Your task to perform on an android device: add a contact in the contacts app Image 0: 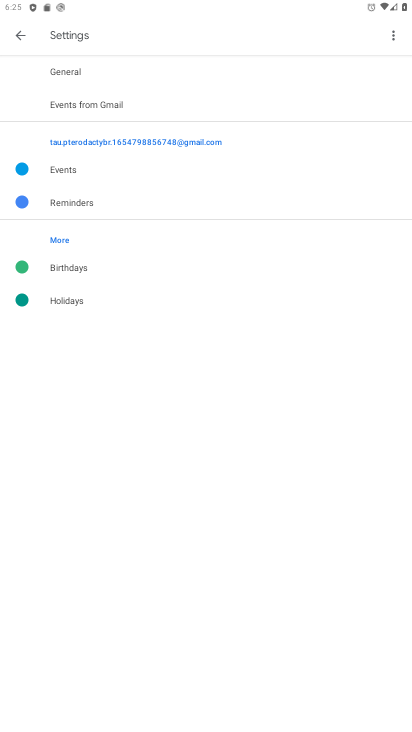
Step 0: press home button
Your task to perform on an android device: add a contact in the contacts app Image 1: 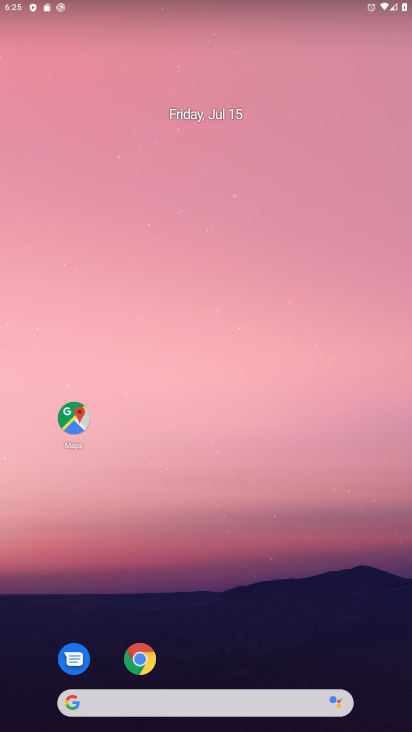
Step 1: drag from (365, 644) to (349, 199)
Your task to perform on an android device: add a contact in the contacts app Image 2: 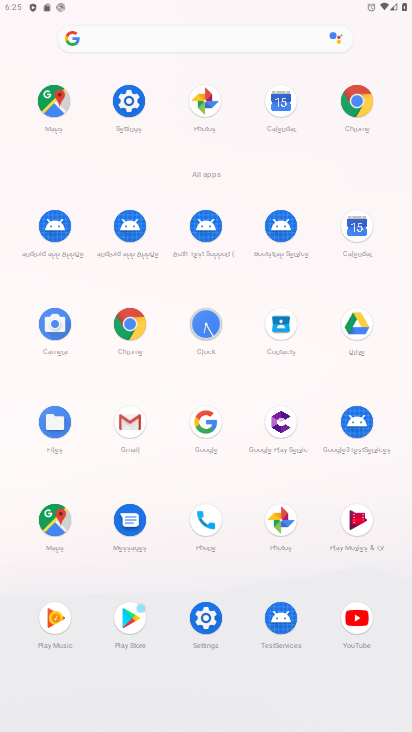
Step 2: click (278, 327)
Your task to perform on an android device: add a contact in the contacts app Image 3: 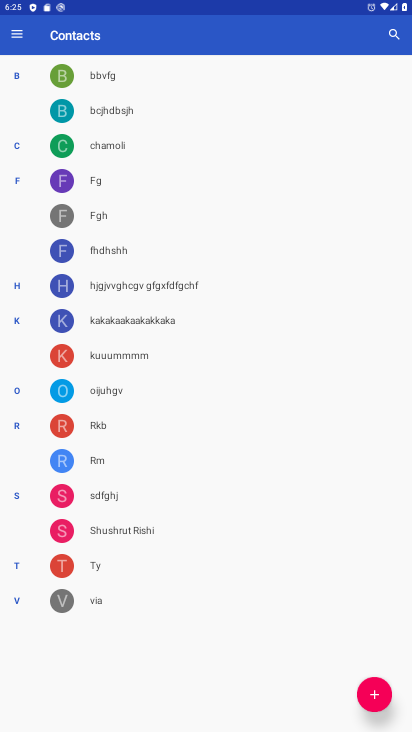
Step 3: click (377, 695)
Your task to perform on an android device: add a contact in the contacts app Image 4: 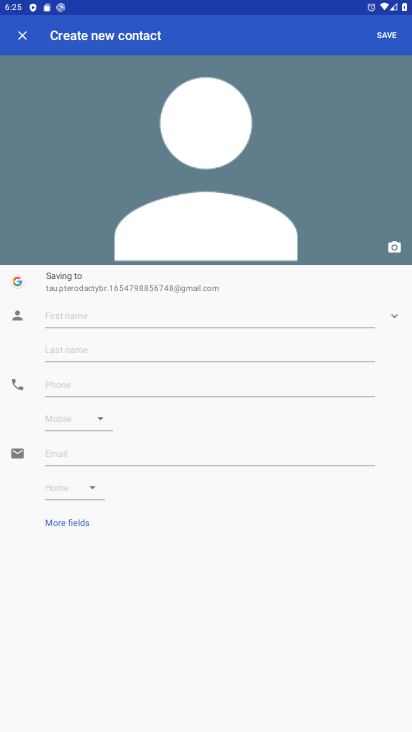
Step 4: click (90, 318)
Your task to perform on an android device: add a contact in the contacts app Image 5: 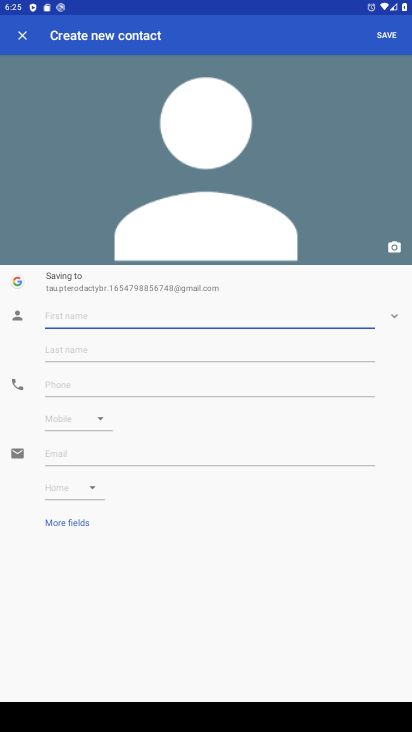
Step 5: type "poiuytfghj"
Your task to perform on an android device: add a contact in the contacts app Image 6: 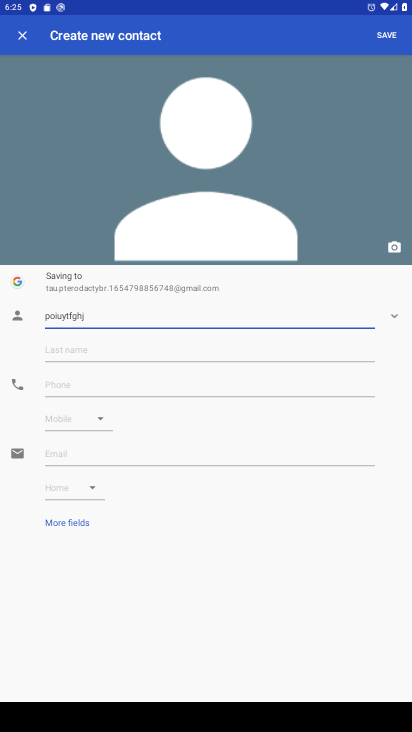
Step 6: click (104, 392)
Your task to perform on an android device: add a contact in the contacts app Image 7: 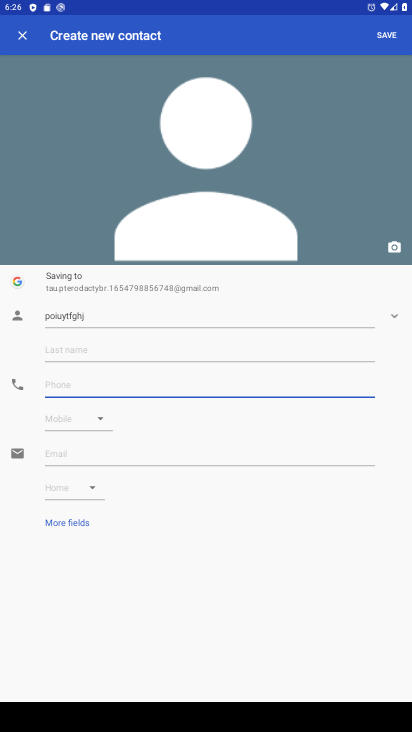
Step 7: type "0987654"
Your task to perform on an android device: add a contact in the contacts app Image 8: 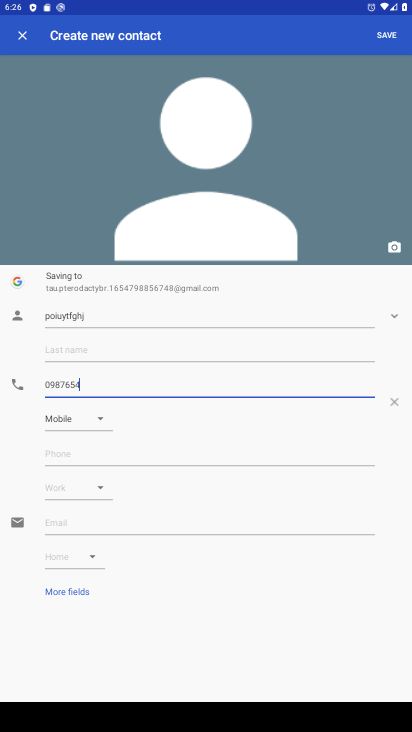
Step 8: click (380, 35)
Your task to perform on an android device: add a contact in the contacts app Image 9: 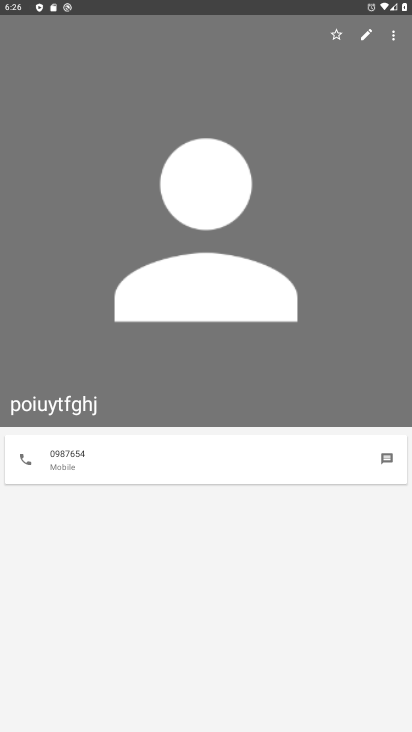
Step 9: task complete